Your task to perform on an android device: turn on sleep mode Image 0: 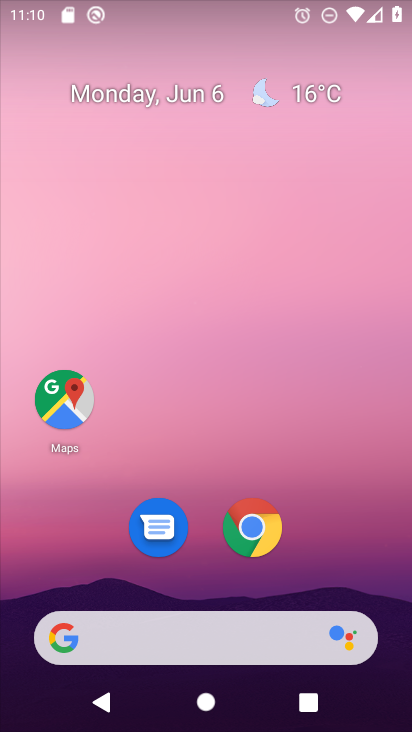
Step 0: drag from (374, 523) to (279, 642)
Your task to perform on an android device: turn on sleep mode Image 1: 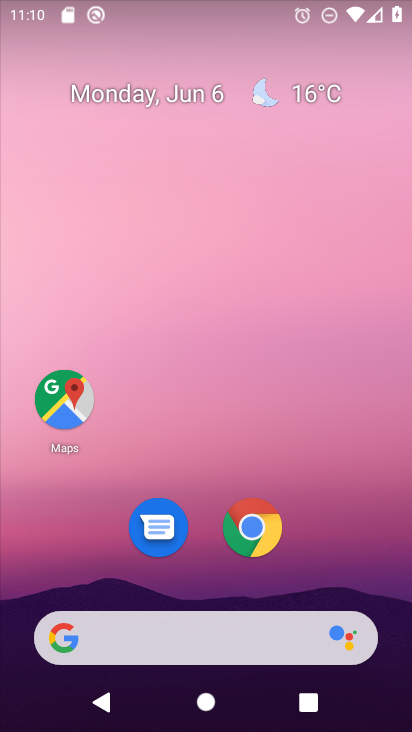
Step 1: drag from (336, 513) to (329, 84)
Your task to perform on an android device: turn on sleep mode Image 2: 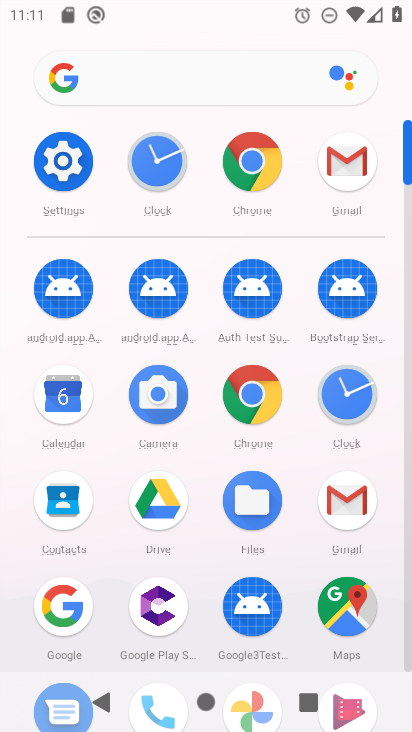
Step 2: click (65, 168)
Your task to perform on an android device: turn on sleep mode Image 3: 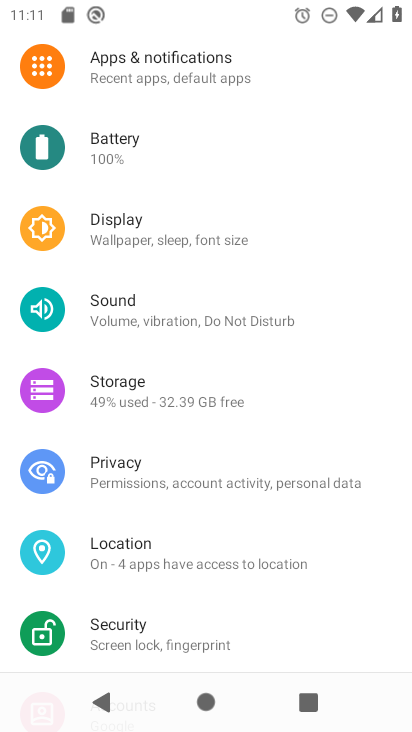
Step 3: drag from (332, 431) to (331, 244)
Your task to perform on an android device: turn on sleep mode Image 4: 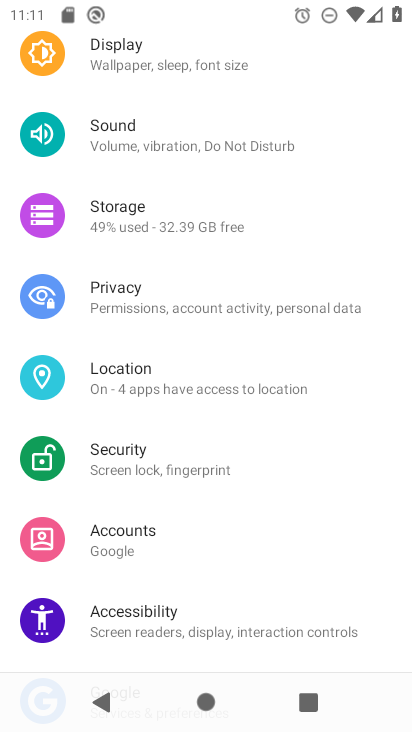
Step 4: drag from (327, 535) to (334, 348)
Your task to perform on an android device: turn on sleep mode Image 5: 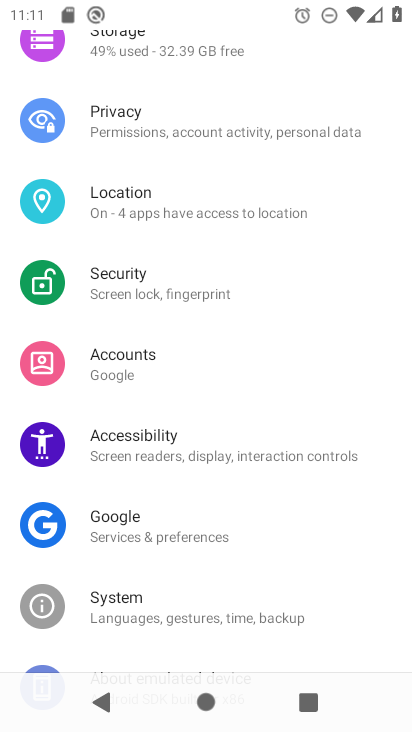
Step 5: drag from (345, 295) to (343, 494)
Your task to perform on an android device: turn on sleep mode Image 6: 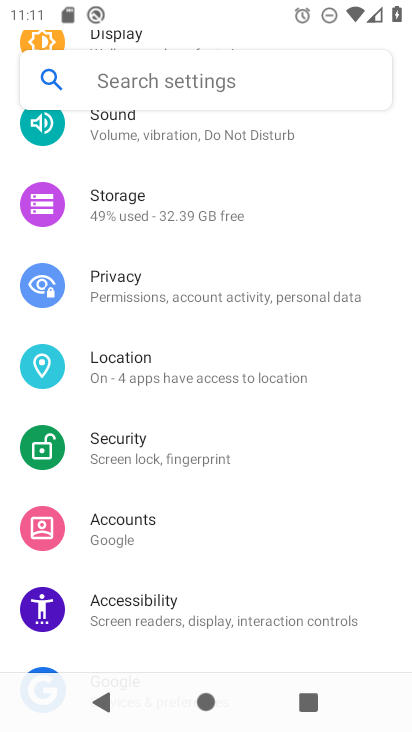
Step 6: drag from (338, 240) to (350, 422)
Your task to perform on an android device: turn on sleep mode Image 7: 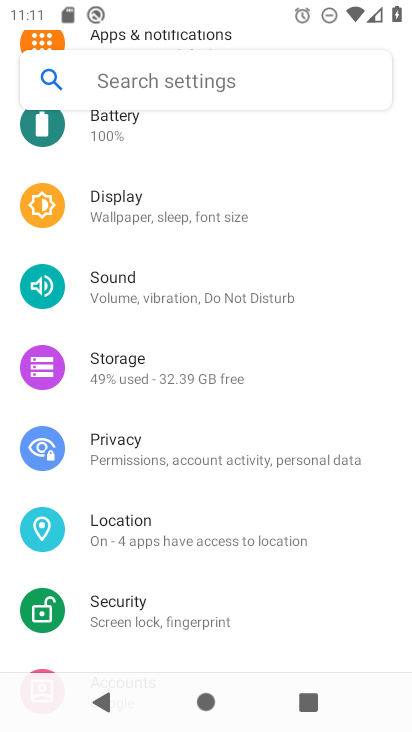
Step 7: drag from (328, 195) to (349, 405)
Your task to perform on an android device: turn on sleep mode Image 8: 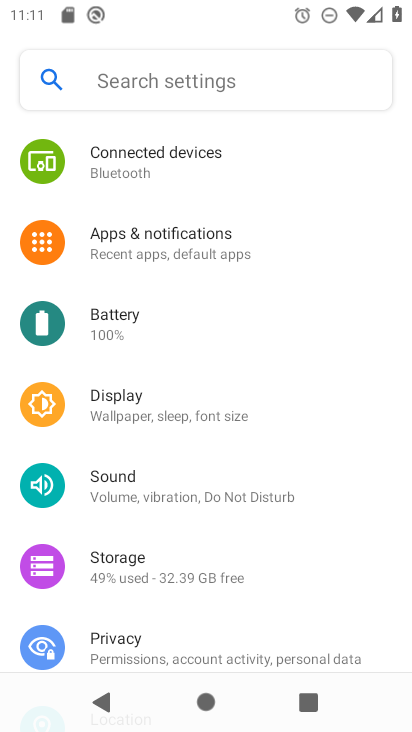
Step 8: drag from (331, 205) to (340, 398)
Your task to perform on an android device: turn on sleep mode Image 9: 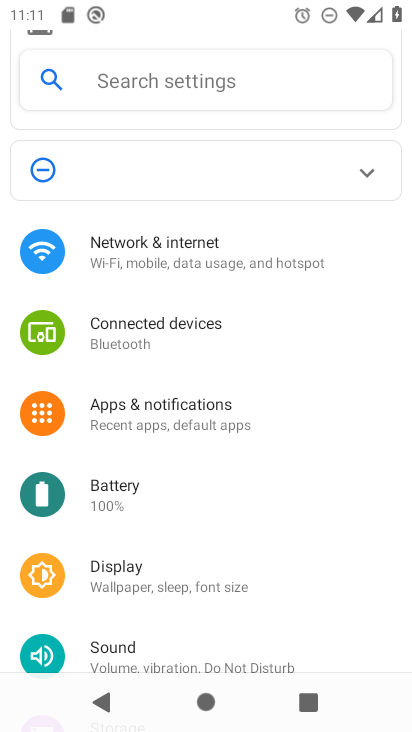
Step 9: drag from (312, 223) to (338, 398)
Your task to perform on an android device: turn on sleep mode Image 10: 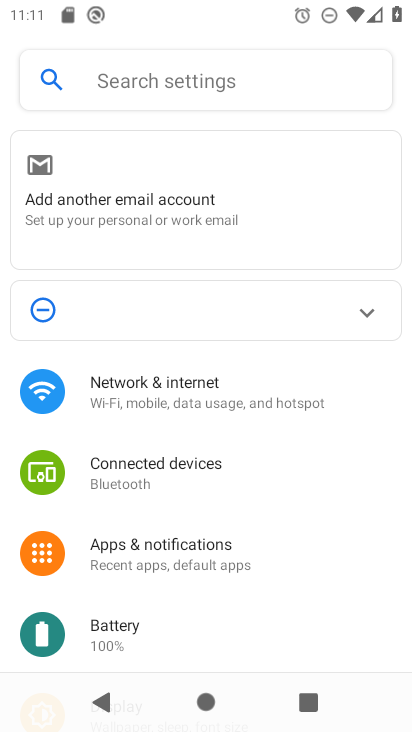
Step 10: drag from (303, 490) to (316, 355)
Your task to perform on an android device: turn on sleep mode Image 11: 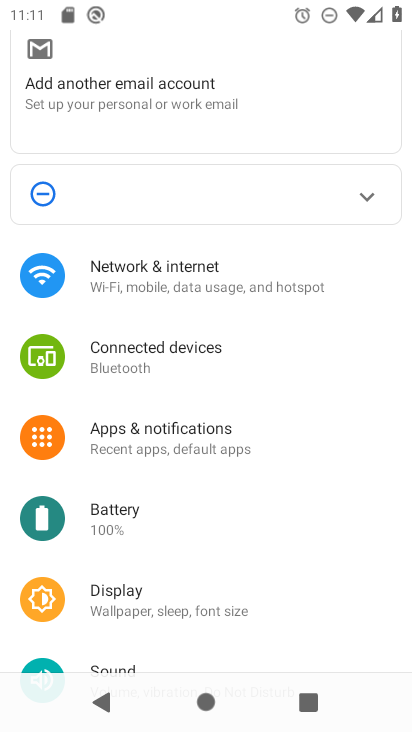
Step 11: drag from (324, 506) to (311, 399)
Your task to perform on an android device: turn on sleep mode Image 12: 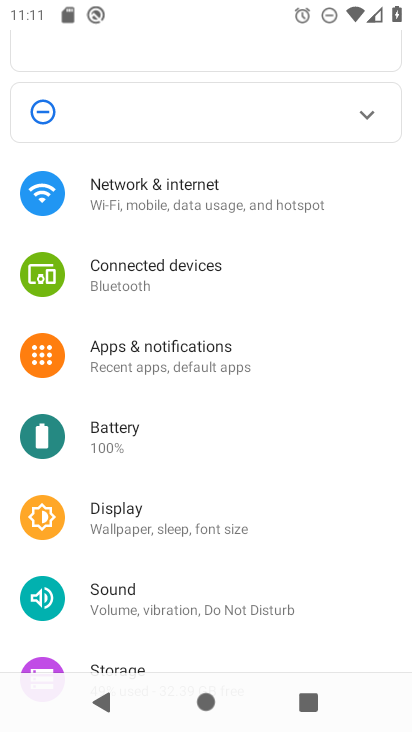
Step 12: click (200, 528)
Your task to perform on an android device: turn on sleep mode Image 13: 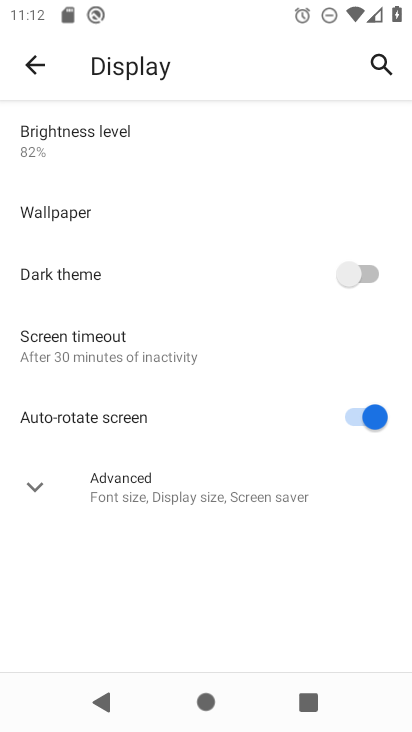
Step 13: click (199, 491)
Your task to perform on an android device: turn on sleep mode Image 14: 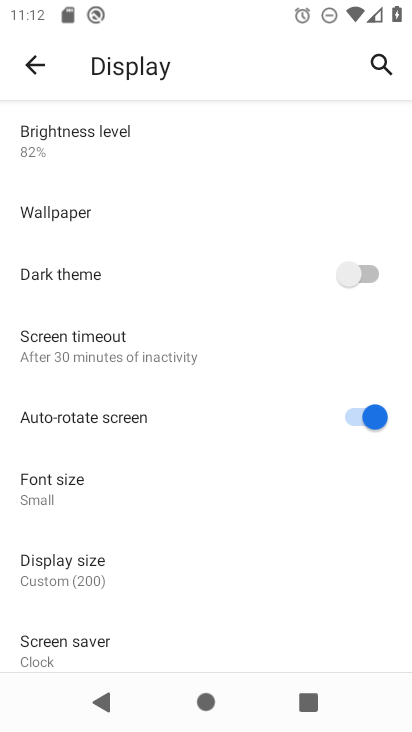
Step 14: task complete